Your task to perform on an android device: change notifications settings Image 0: 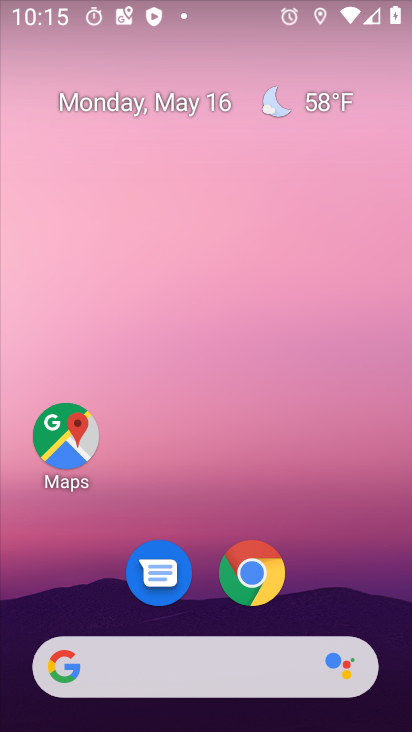
Step 0: click (305, 516)
Your task to perform on an android device: change notifications settings Image 1: 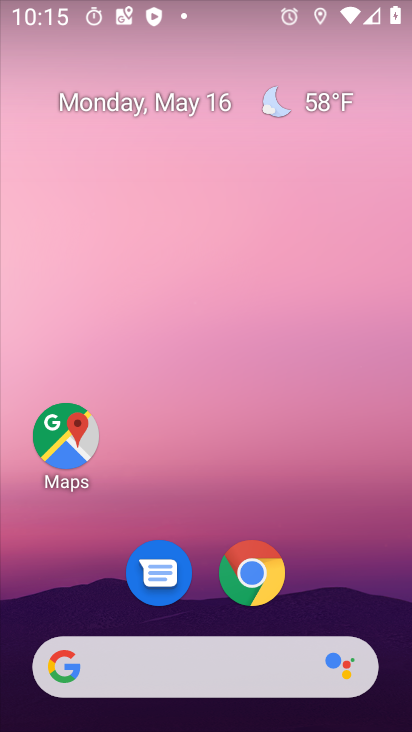
Step 1: drag from (366, 583) to (162, 143)
Your task to perform on an android device: change notifications settings Image 2: 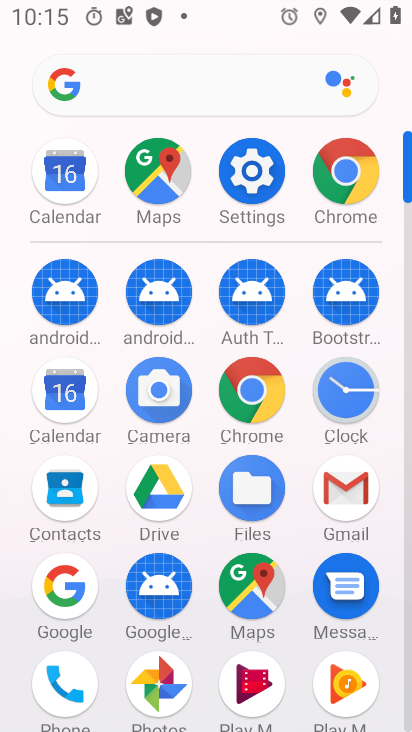
Step 2: click (267, 174)
Your task to perform on an android device: change notifications settings Image 3: 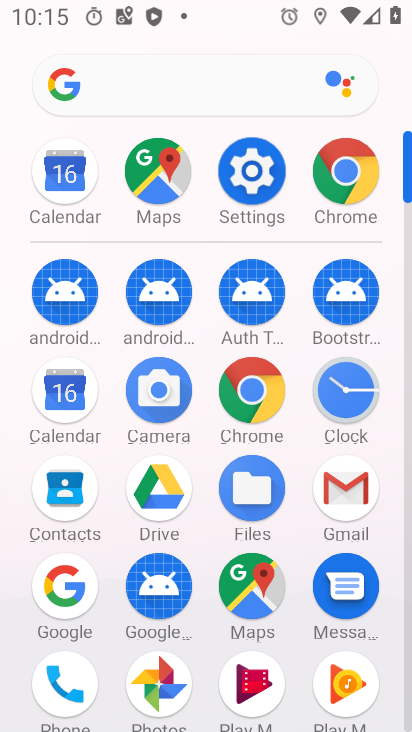
Step 3: click (268, 175)
Your task to perform on an android device: change notifications settings Image 4: 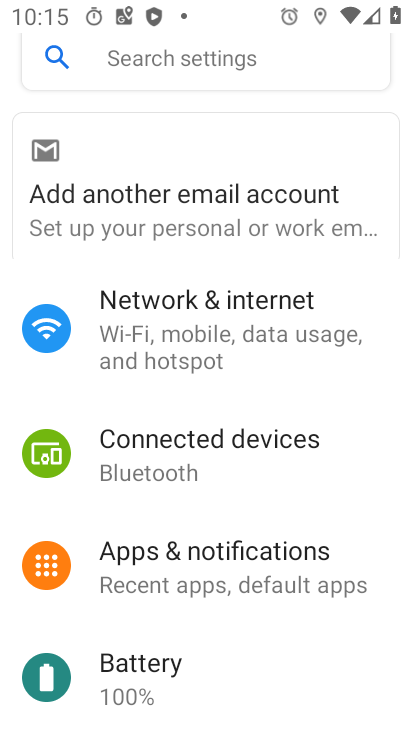
Step 4: click (268, 175)
Your task to perform on an android device: change notifications settings Image 5: 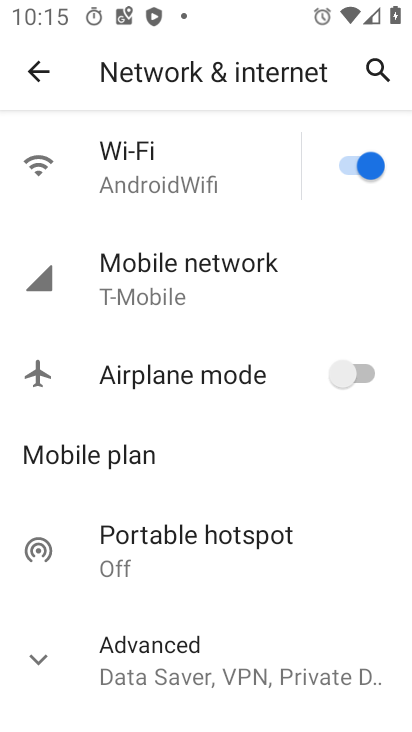
Step 5: click (33, 70)
Your task to perform on an android device: change notifications settings Image 6: 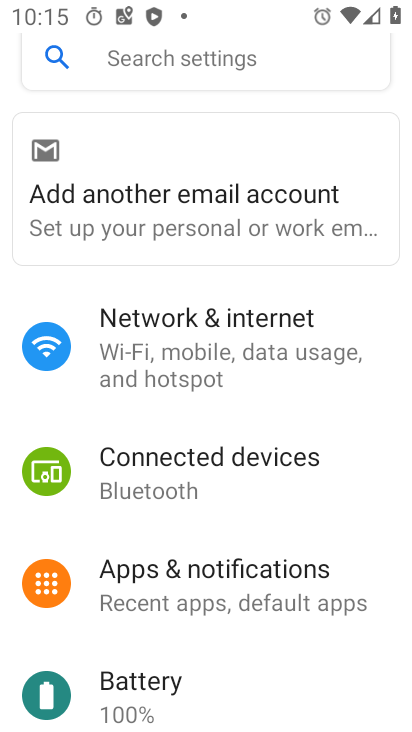
Step 6: click (210, 576)
Your task to perform on an android device: change notifications settings Image 7: 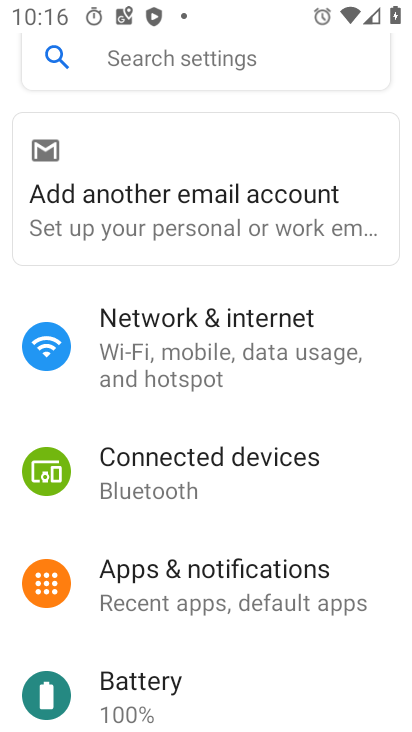
Step 7: click (213, 574)
Your task to perform on an android device: change notifications settings Image 8: 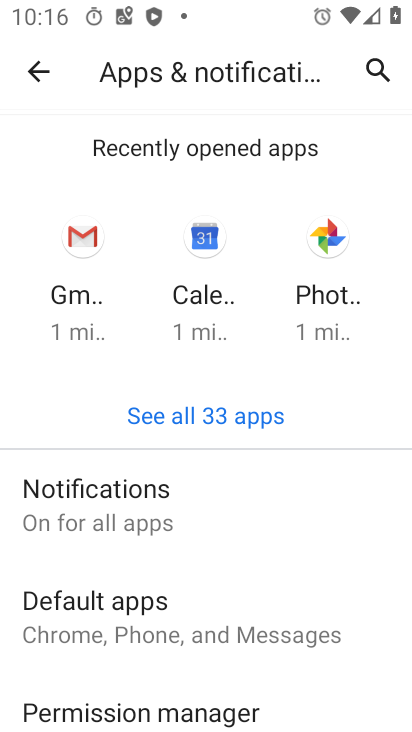
Step 8: click (95, 497)
Your task to perform on an android device: change notifications settings Image 9: 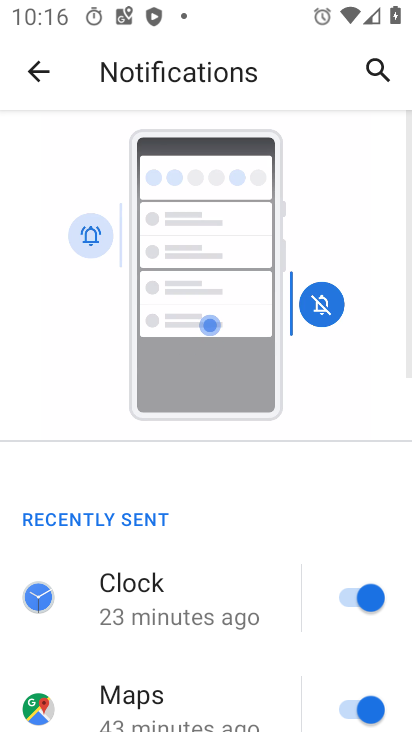
Step 9: drag from (228, 539) to (196, 235)
Your task to perform on an android device: change notifications settings Image 10: 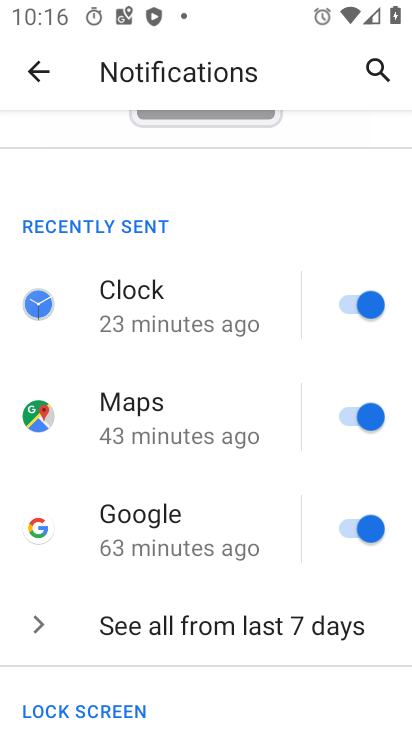
Step 10: drag from (204, 545) to (154, 133)
Your task to perform on an android device: change notifications settings Image 11: 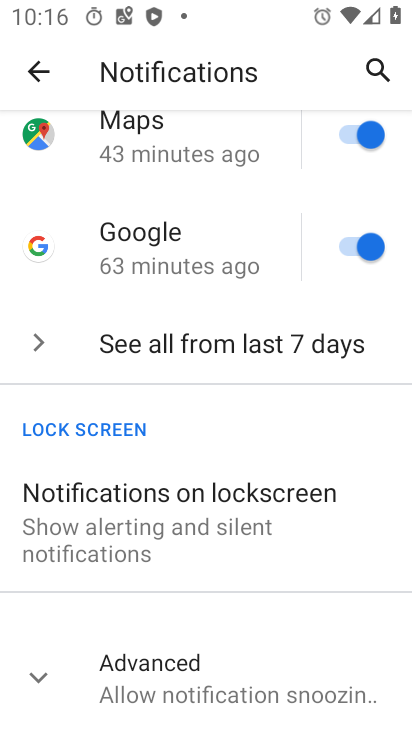
Step 11: drag from (191, 493) to (221, 147)
Your task to perform on an android device: change notifications settings Image 12: 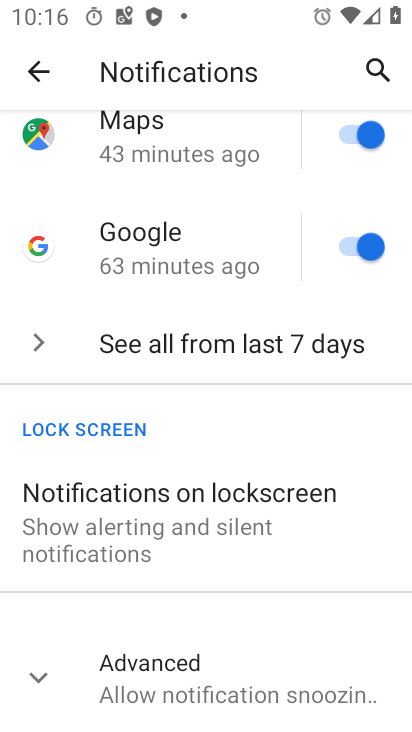
Step 12: click (122, 514)
Your task to perform on an android device: change notifications settings Image 13: 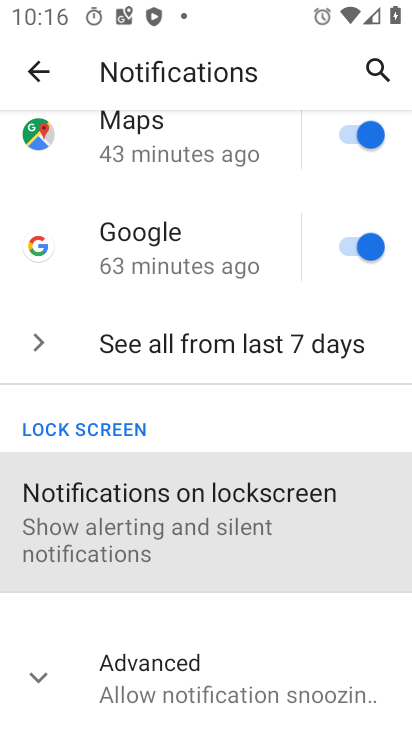
Step 13: click (122, 514)
Your task to perform on an android device: change notifications settings Image 14: 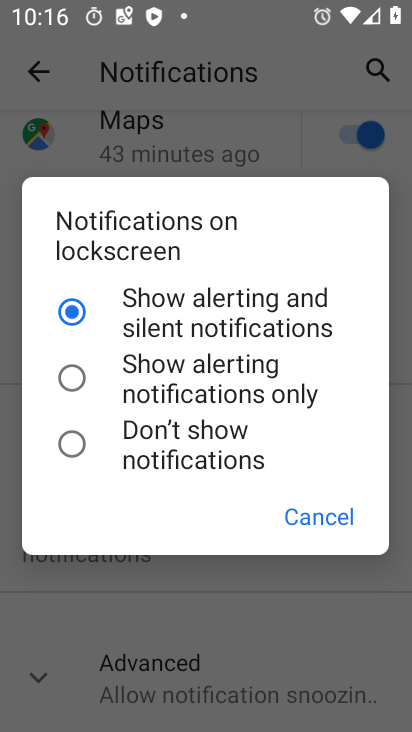
Step 14: click (123, 513)
Your task to perform on an android device: change notifications settings Image 15: 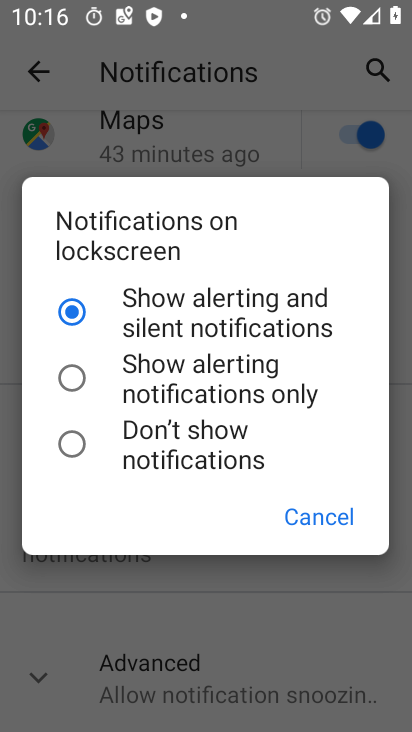
Step 15: click (311, 517)
Your task to perform on an android device: change notifications settings Image 16: 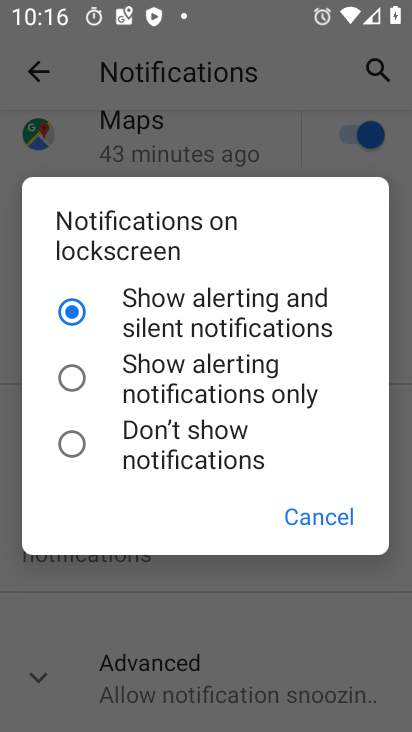
Step 16: click (315, 514)
Your task to perform on an android device: change notifications settings Image 17: 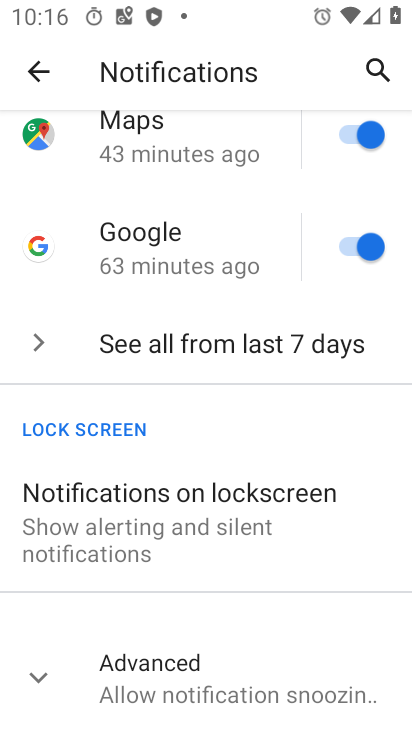
Step 17: drag from (156, 178) to (156, 587)
Your task to perform on an android device: change notifications settings Image 18: 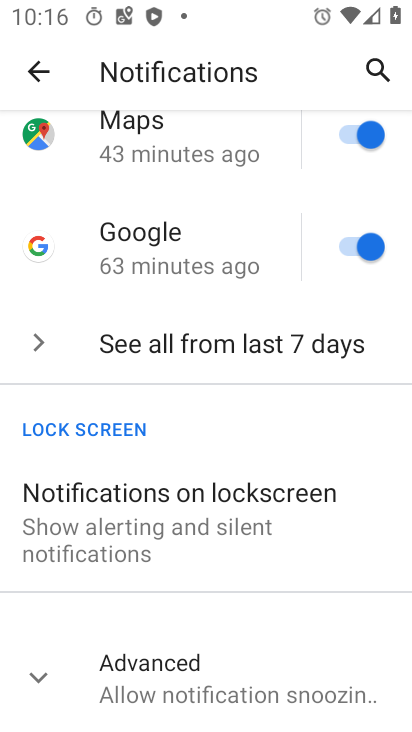
Step 18: drag from (165, 137) to (221, 496)
Your task to perform on an android device: change notifications settings Image 19: 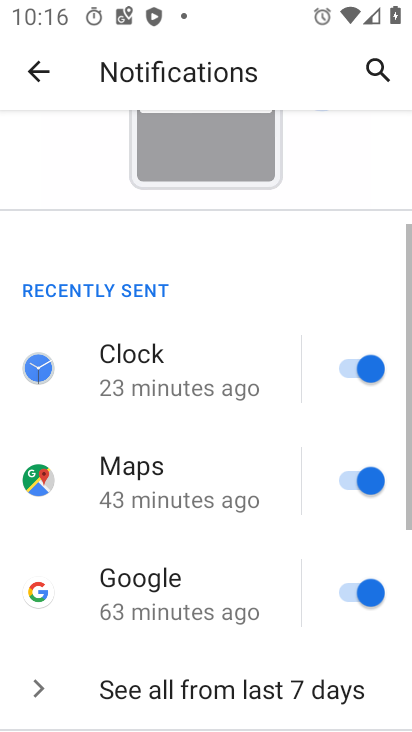
Step 19: drag from (188, 212) to (224, 580)
Your task to perform on an android device: change notifications settings Image 20: 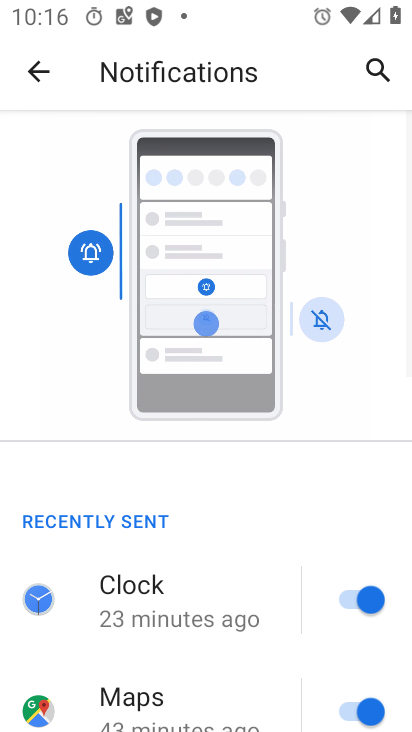
Step 20: drag from (203, 259) to (259, 636)
Your task to perform on an android device: change notifications settings Image 21: 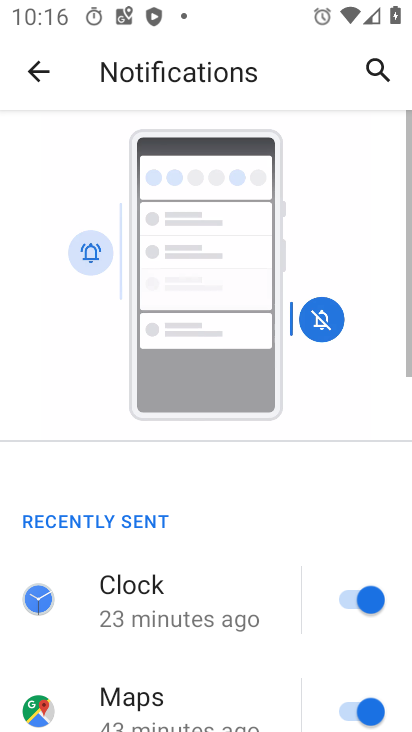
Step 21: click (239, 92)
Your task to perform on an android device: change notifications settings Image 22: 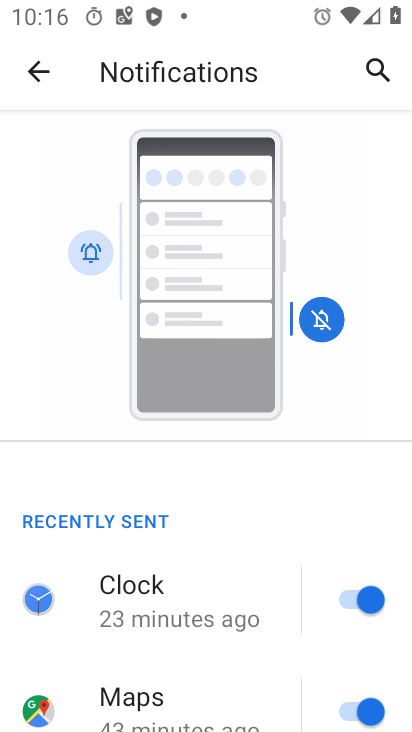
Step 22: click (246, 85)
Your task to perform on an android device: change notifications settings Image 23: 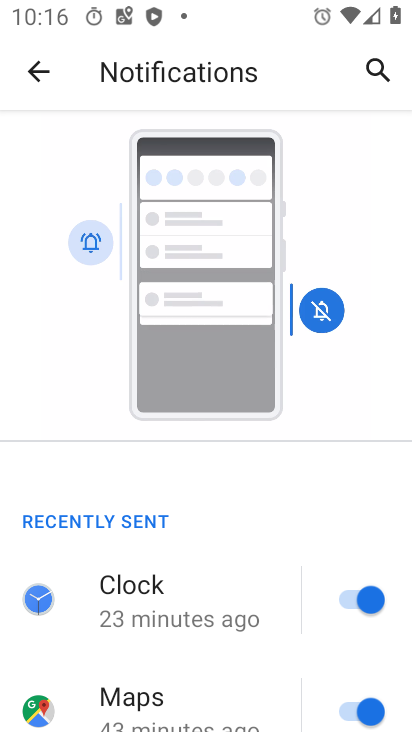
Step 23: click (250, 80)
Your task to perform on an android device: change notifications settings Image 24: 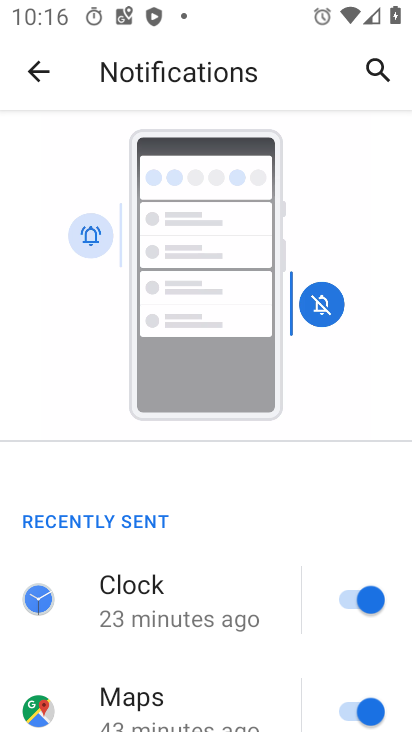
Step 24: click (322, 306)
Your task to perform on an android device: change notifications settings Image 25: 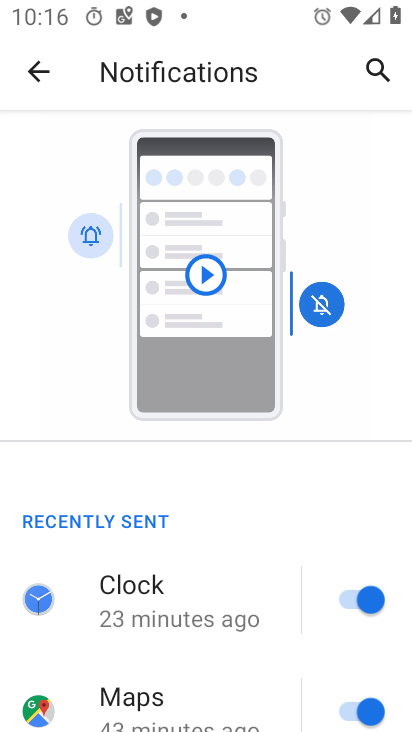
Step 25: click (338, 289)
Your task to perform on an android device: change notifications settings Image 26: 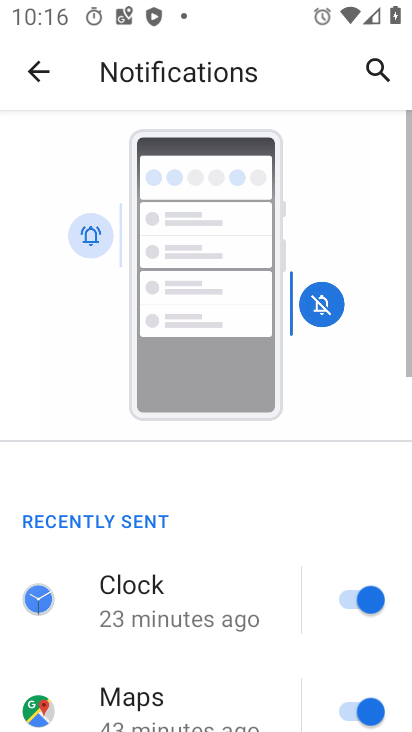
Step 26: click (322, 301)
Your task to perform on an android device: change notifications settings Image 27: 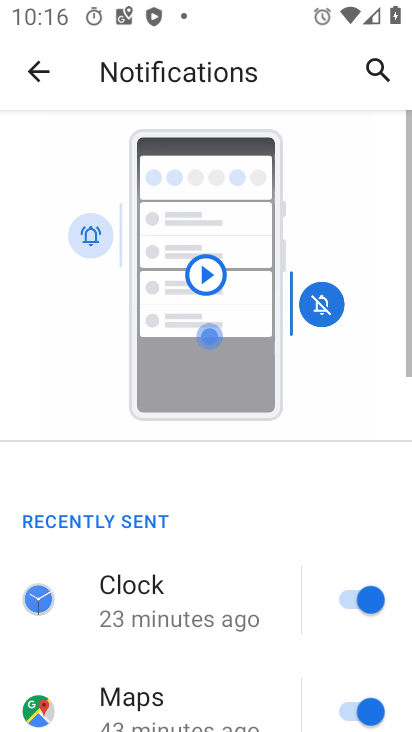
Step 27: drag from (194, 618) to (109, 280)
Your task to perform on an android device: change notifications settings Image 28: 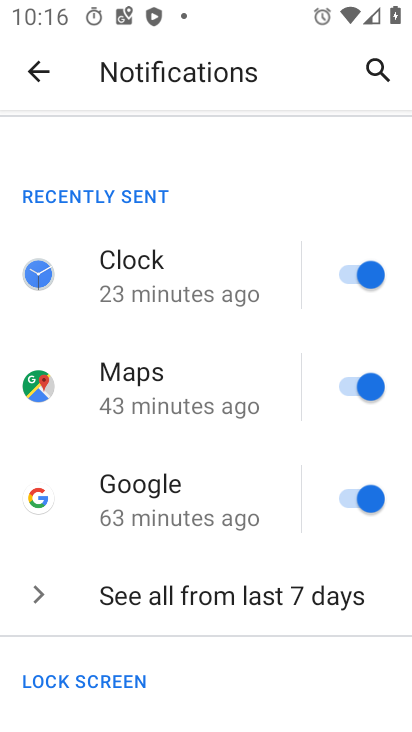
Step 28: drag from (203, 581) to (232, 106)
Your task to perform on an android device: change notifications settings Image 29: 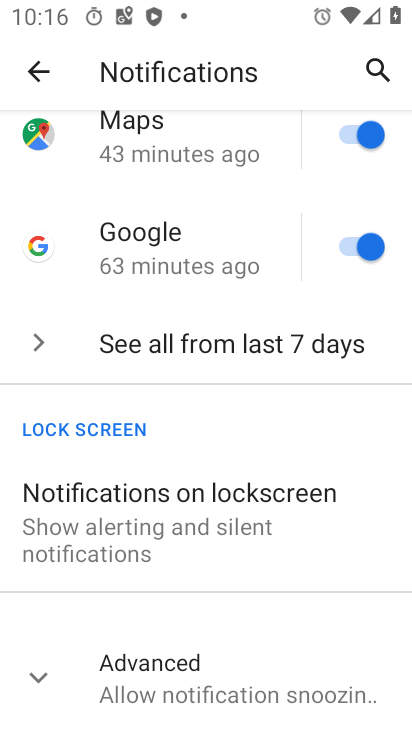
Step 29: drag from (136, 551) to (172, 108)
Your task to perform on an android device: change notifications settings Image 30: 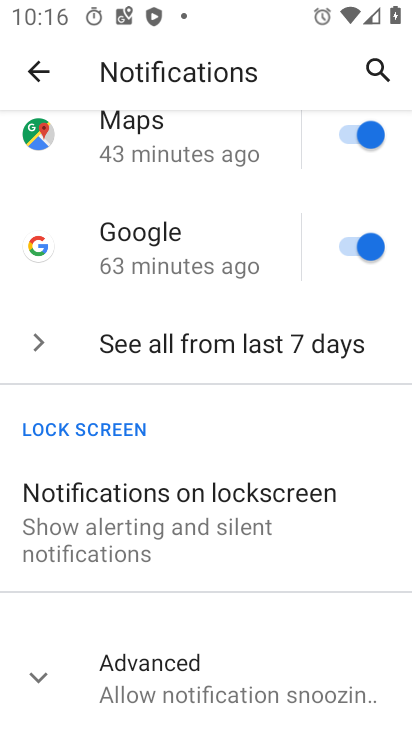
Step 30: click (342, 534)
Your task to perform on an android device: change notifications settings Image 31: 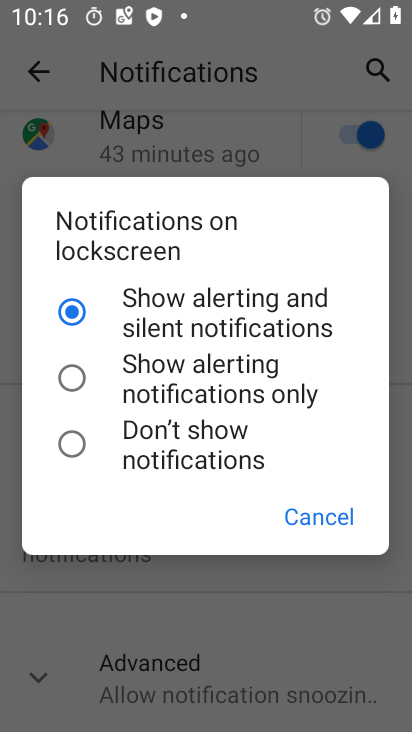
Step 31: click (38, 330)
Your task to perform on an android device: change notifications settings Image 32: 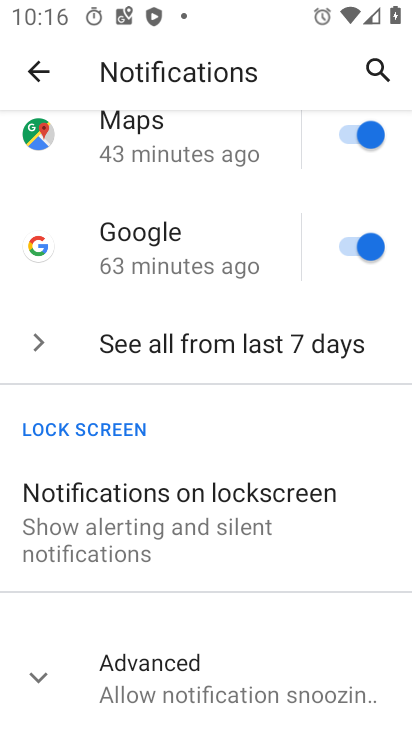
Step 32: click (199, 346)
Your task to perform on an android device: change notifications settings Image 33: 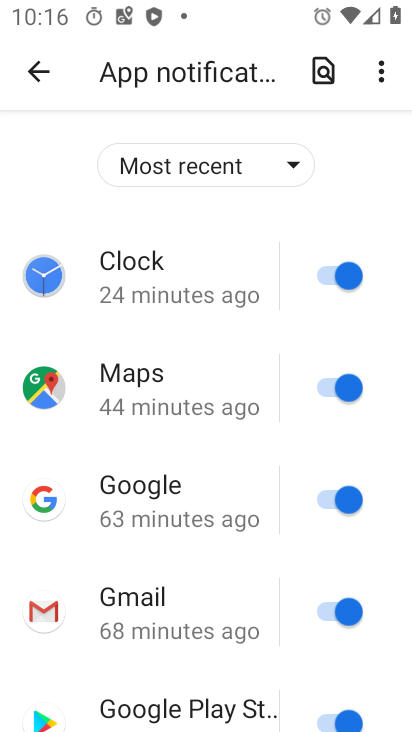
Step 33: click (41, 73)
Your task to perform on an android device: change notifications settings Image 34: 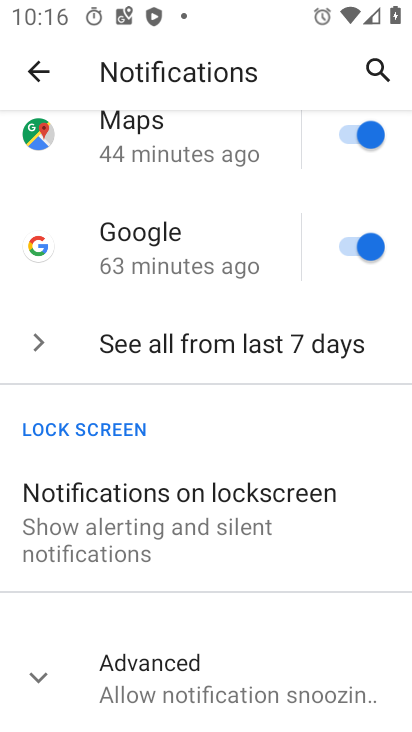
Step 34: click (275, 77)
Your task to perform on an android device: change notifications settings Image 35: 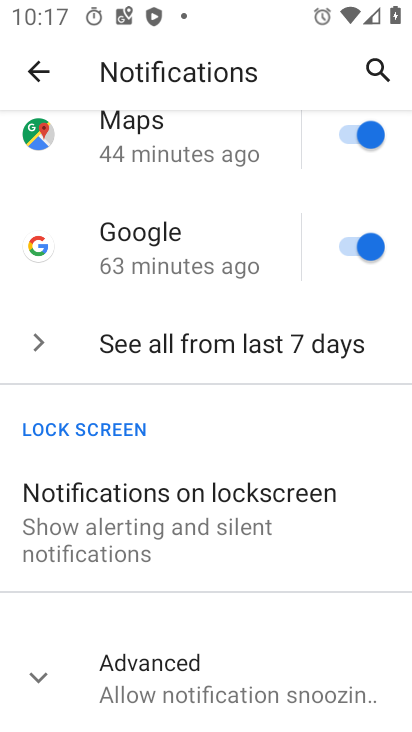
Step 35: click (275, 77)
Your task to perform on an android device: change notifications settings Image 36: 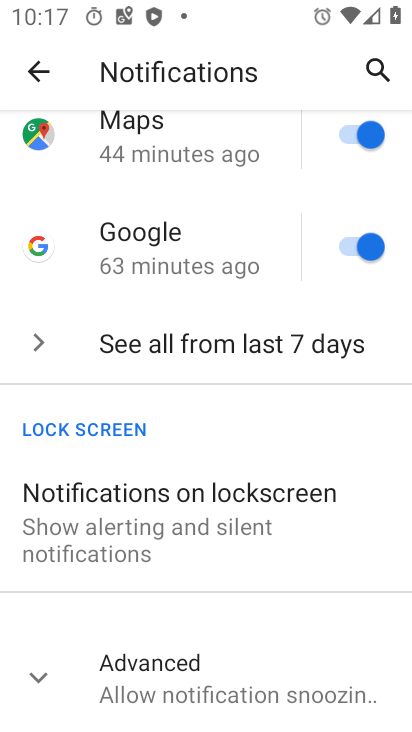
Step 36: click (275, 77)
Your task to perform on an android device: change notifications settings Image 37: 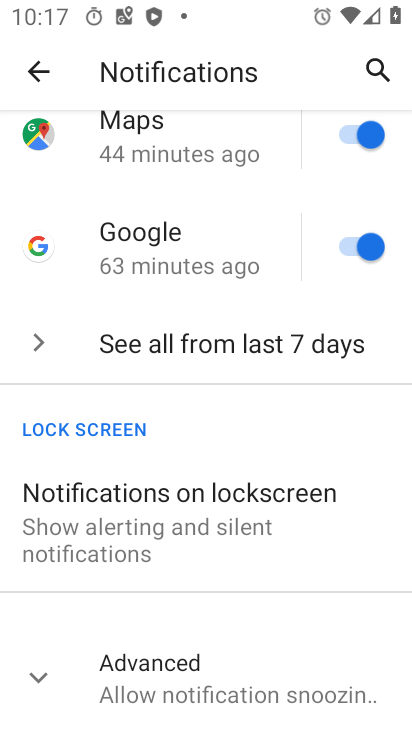
Step 37: drag from (164, 577) to (105, 114)
Your task to perform on an android device: change notifications settings Image 38: 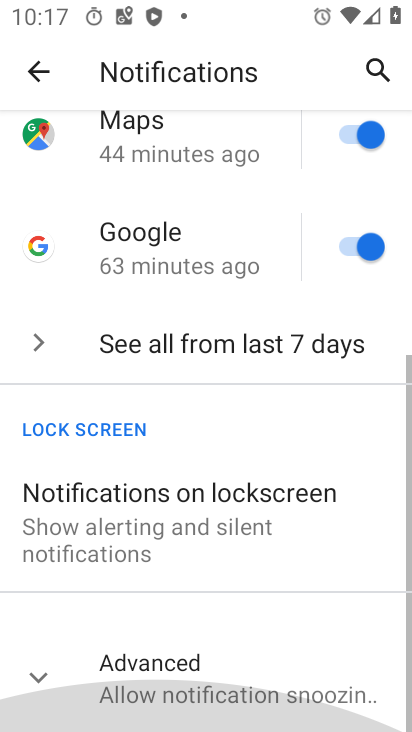
Step 38: drag from (142, 514) to (104, 178)
Your task to perform on an android device: change notifications settings Image 39: 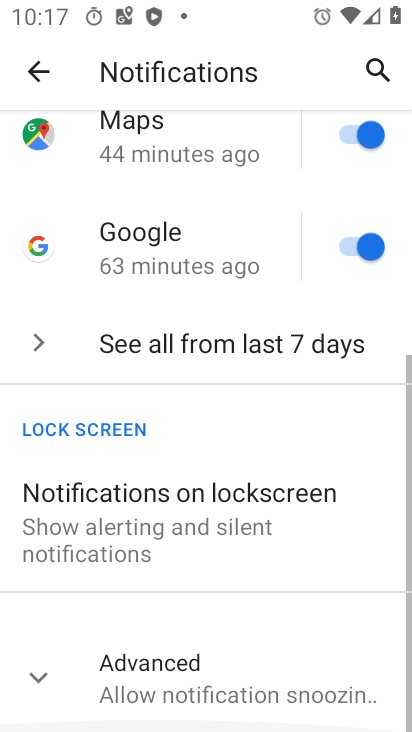
Step 39: click (188, 669)
Your task to perform on an android device: change notifications settings Image 40: 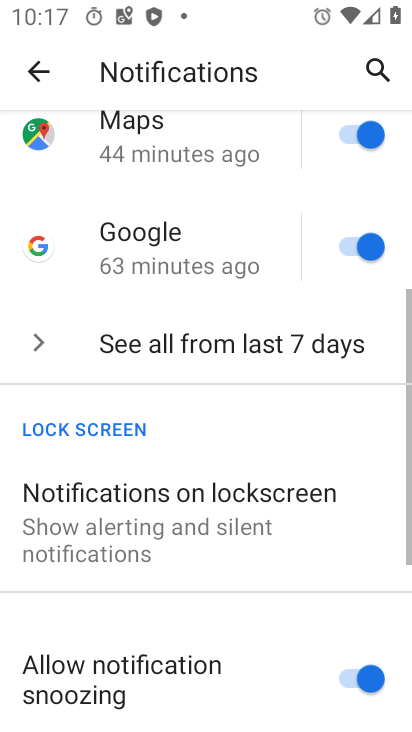
Step 40: click (197, 676)
Your task to perform on an android device: change notifications settings Image 41: 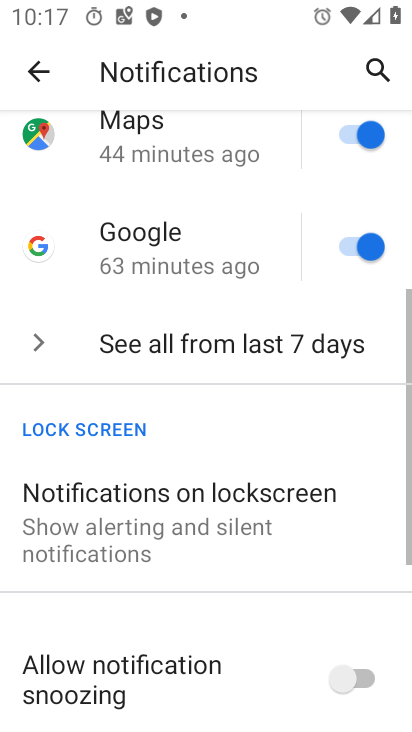
Step 41: click (370, 677)
Your task to perform on an android device: change notifications settings Image 42: 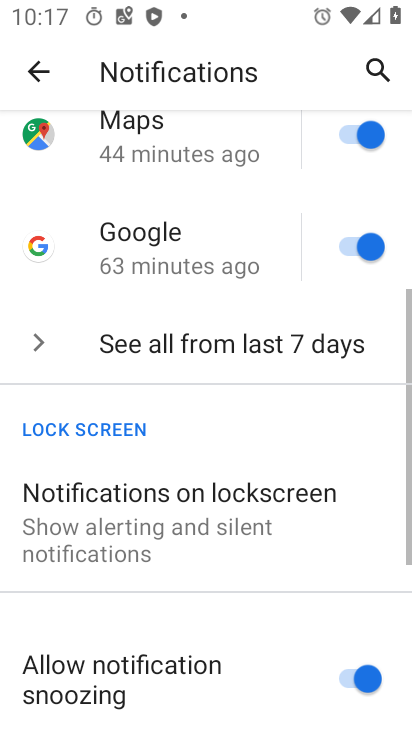
Step 42: drag from (301, 648) to (263, 274)
Your task to perform on an android device: change notifications settings Image 43: 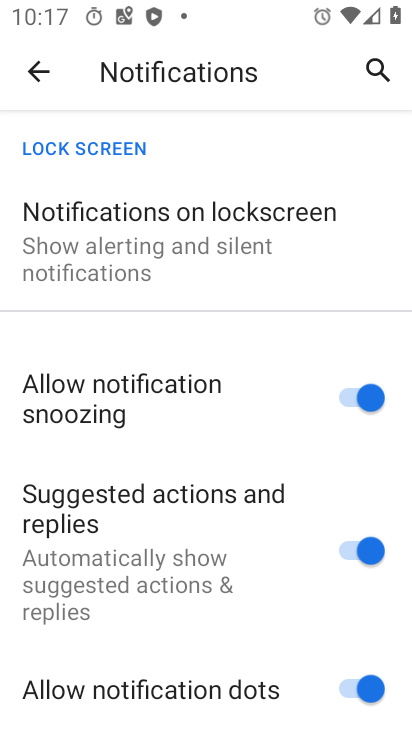
Step 43: click (390, 566)
Your task to perform on an android device: change notifications settings Image 44: 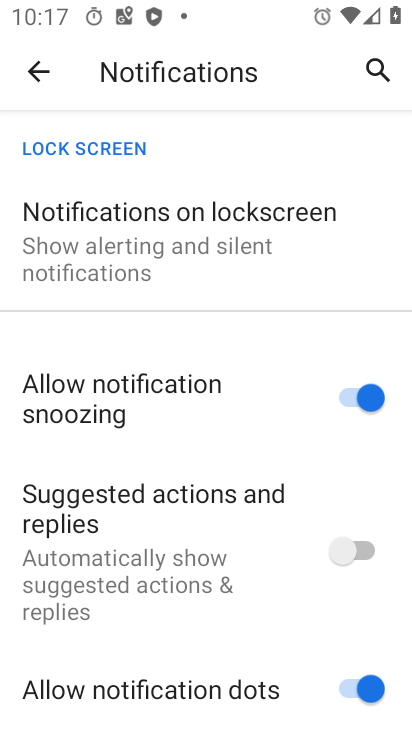
Step 44: click (368, 396)
Your task to perform on an android device: change notifications settings Image 45: 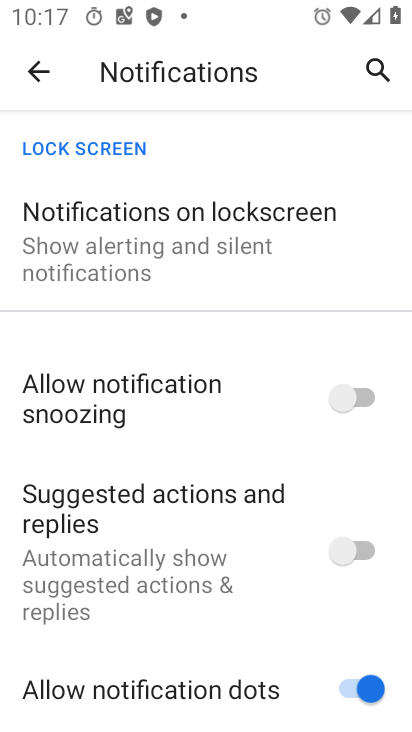
Step 45: click (365, 690)
Your task to perform on an android device: change notifications settings Image 46: 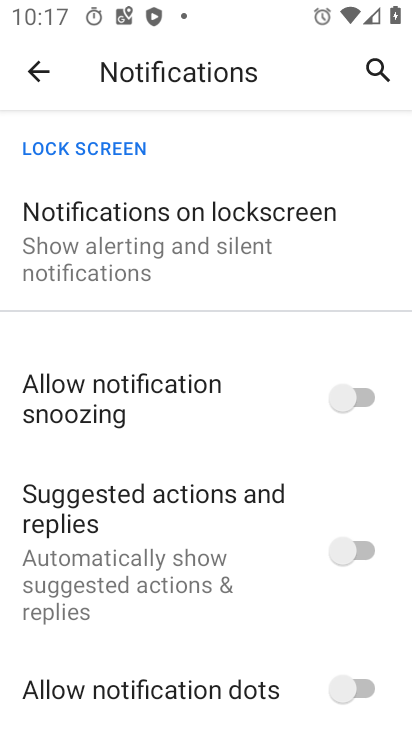
Step 46: task complete